Your task to perform on an android device: Go to network settings Image 0: 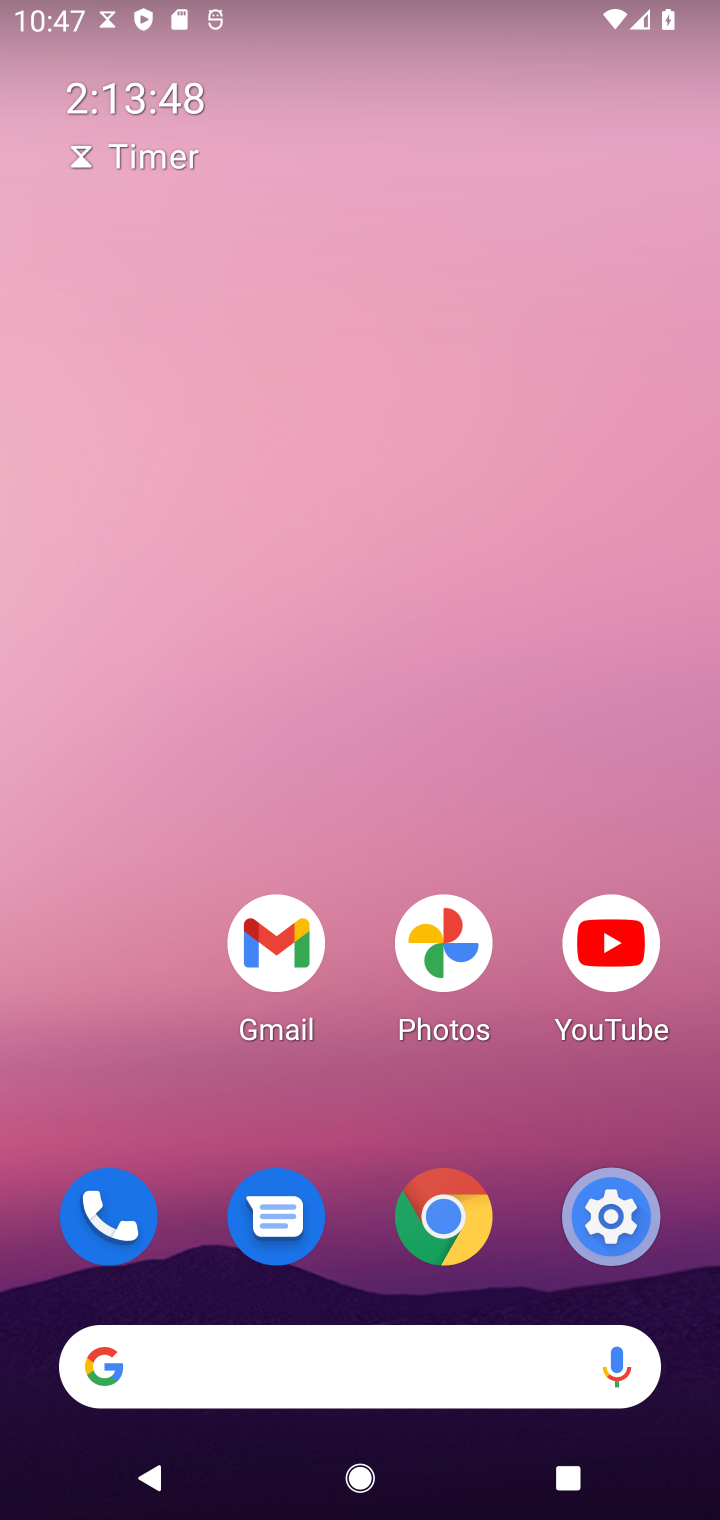
Step 0: click (616, 1236)
Your task to perform on an android device: Go to network settings Image 1: 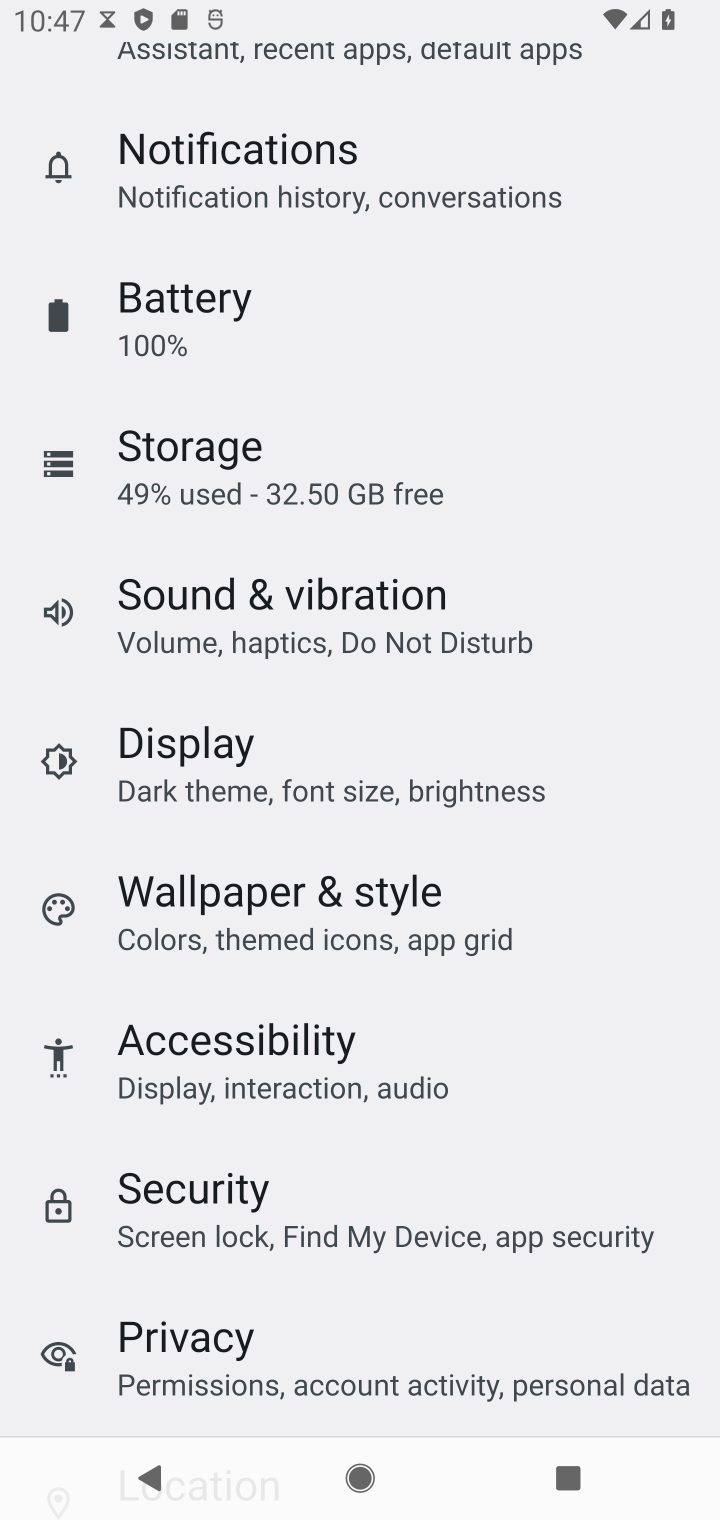
Step 1: drag from (377, 213) to (425, 1322)
Your task to perform on an android device: Go to network settings Image 2: 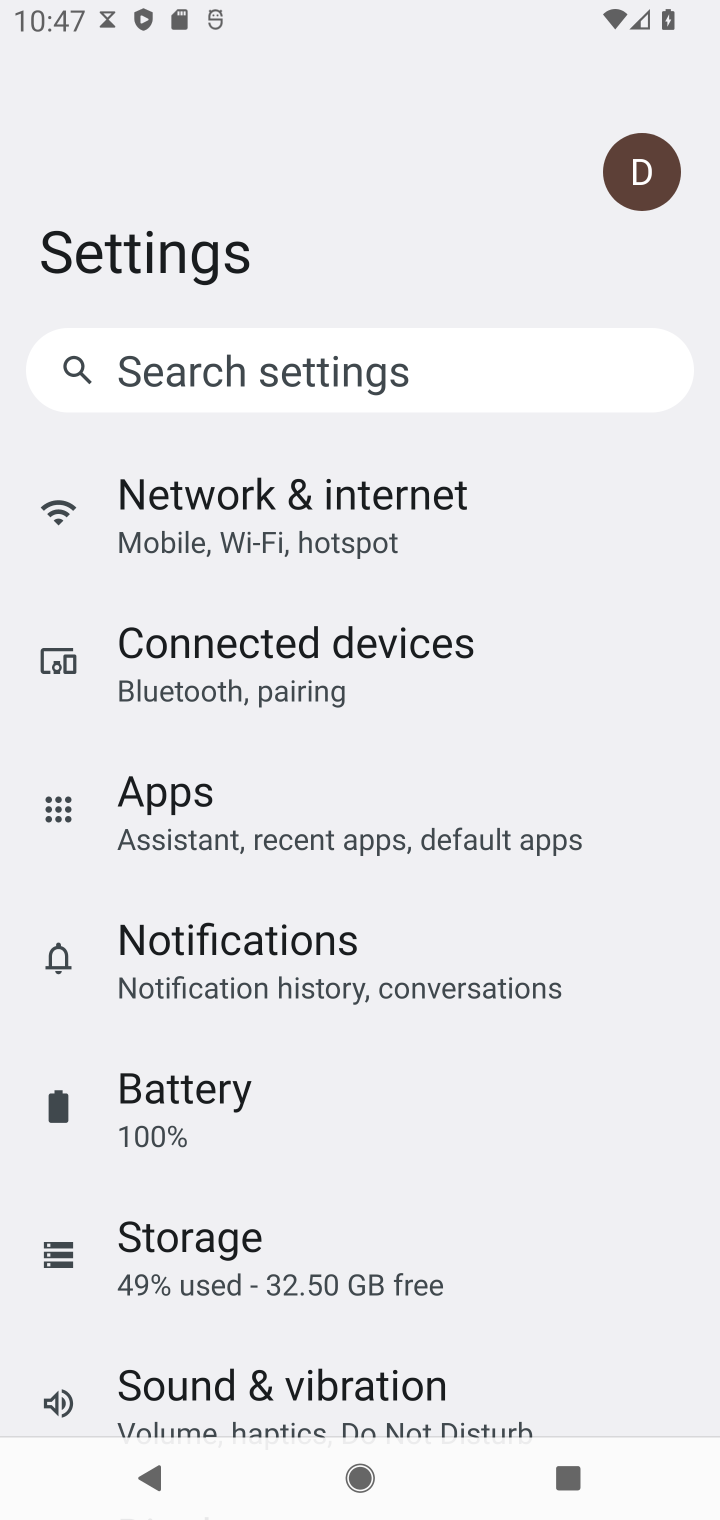
Step 2: click (313, 498)
Your task to perform on an android device: Go to network settings Image 3: 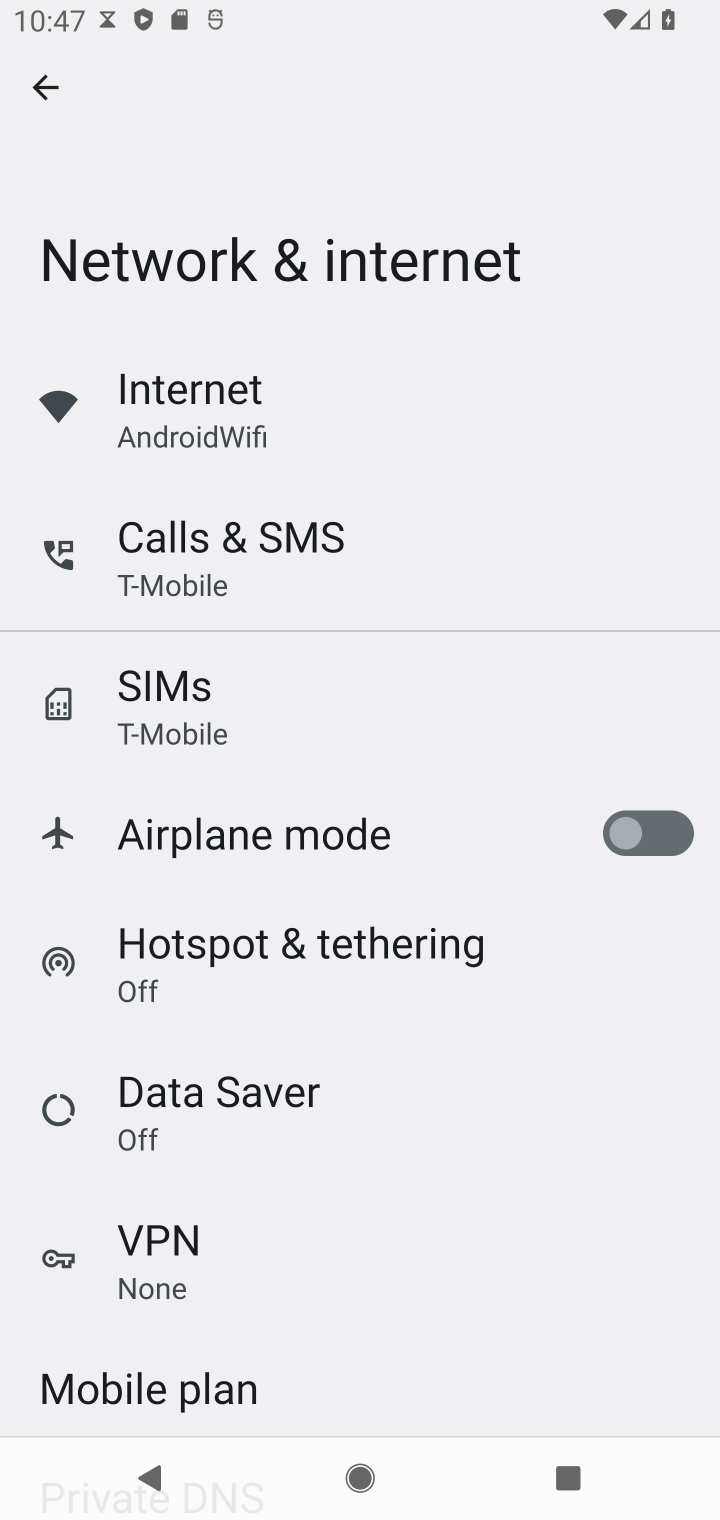
Step 3: task complete